Your task to perform on an android device: see tabs open on other devices in the chrome app Image 0: 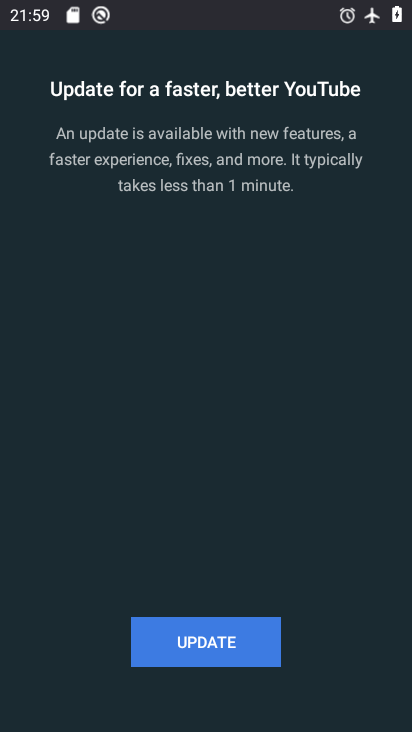
Step 0: press home button
Your task to perform on an android device: see tabs open on other devices in the chrome app Image 1: 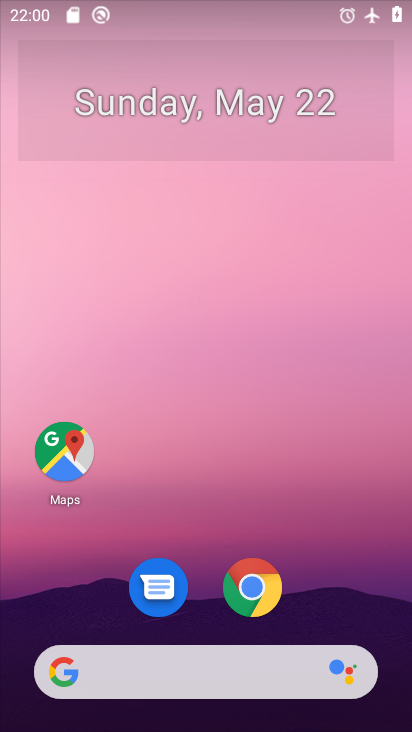
Step 1: click (248, 590)
Your task to perform on an android device: see tabs open on other devices in the chrome app Image 2: 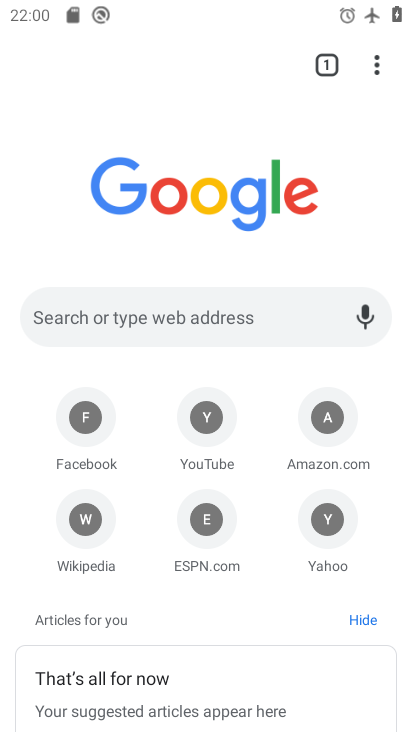
Step 2: click (371, 64)
Your task to perform on an android device: see tabs open on other devices in the chrome app Image 3: 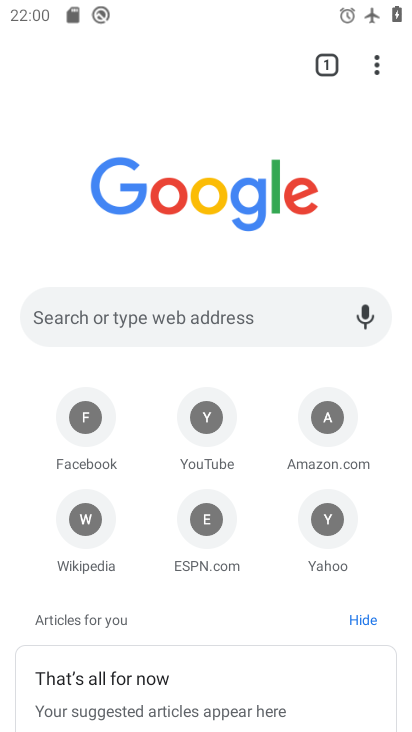
Step 3: click (374, 68)
Your task to perform on an android device: see tabs open on other devices in the chrome app Image 4: 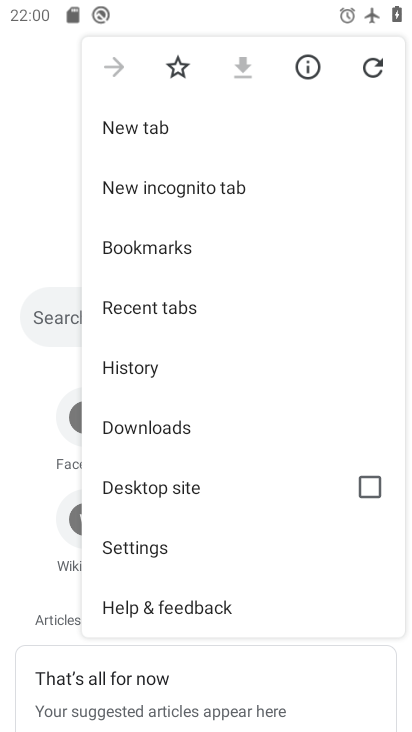
Step 4: click (185, 292)
Your task to perform on an android device: see tabs open on other devices in the chrome app Image 5: 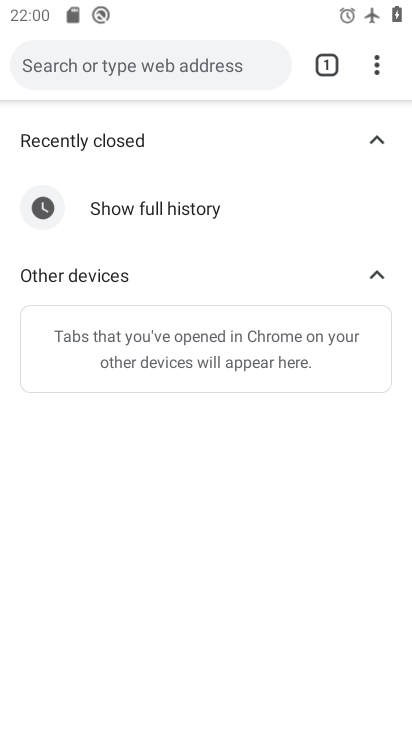
Step 5: task complete